Your task to perform on an android device: delete a single message in the gmail app Image 0: 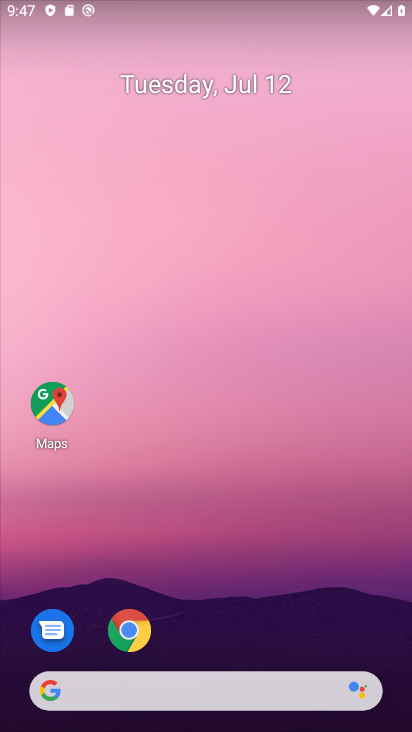
Step 0: drag from (338, 588) to (314, 0)
Your task to perform on an android device: delete a single message in the gmail app Image 1: 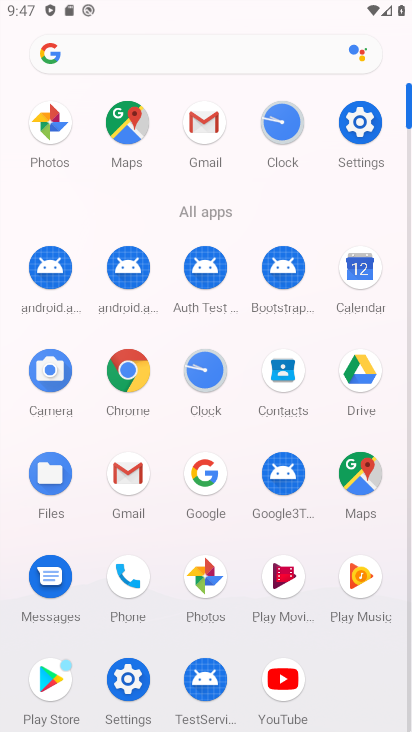
Step 1: click (200, 134)
Your task to perform on an android device: delete a single message in the gmail app Image 2: 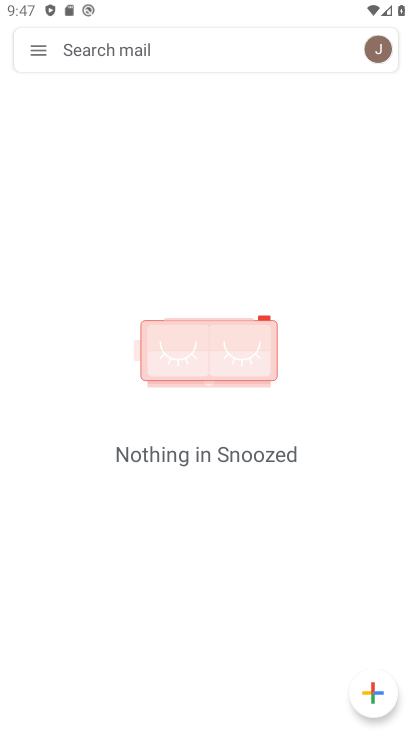
Step 2: task complete